Your task to perform on an android device: turn on javascript in the chrome app Image 0: 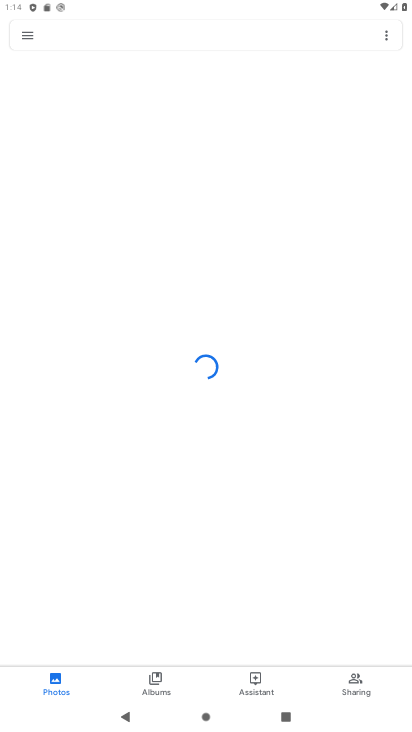
Step 0: press home button
Your task to perform on an android device: turn on javascript in the chrome app Image 1: 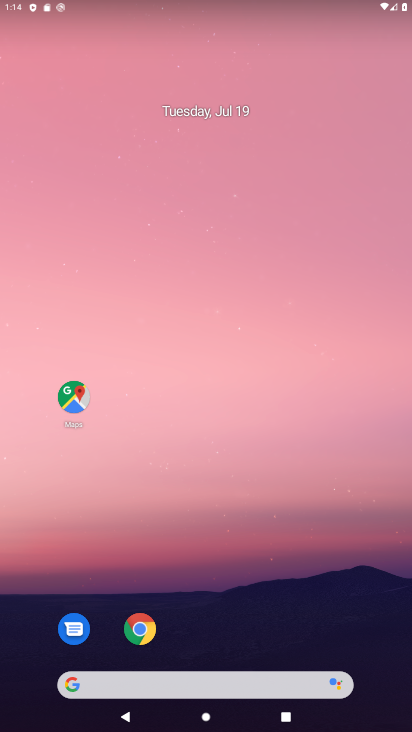
Step 1: click (143, 627)
Your task to perform on an android device: turn on javascript in the chrome app Image 2: 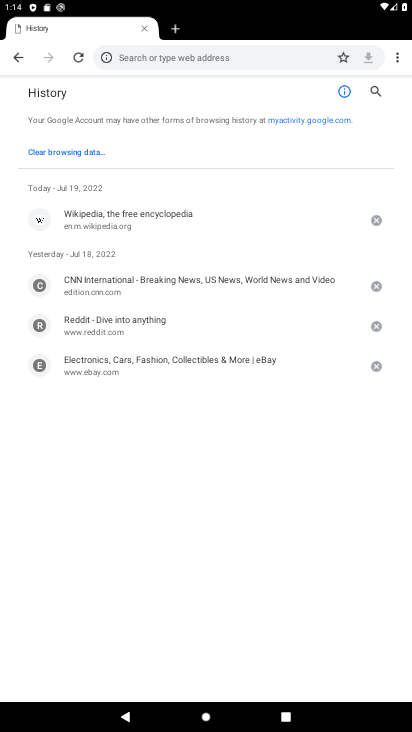
Step 2: click (398, 51)
Your task to perform on an android device: turn on javascript in the chrome app Image 3: 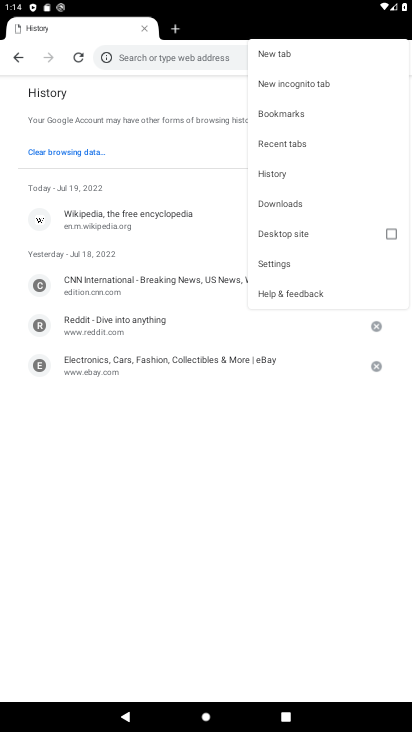
Step 3: click (291, 269)
Your task to perform on an android device: turn on javascript in the chrome app Image 4: 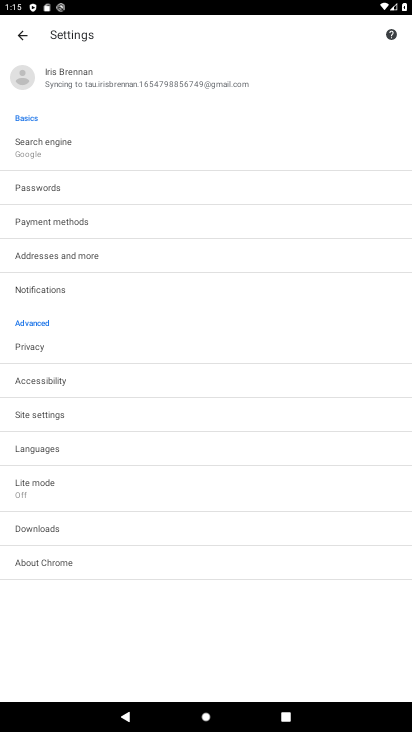
Step 4: click (87, 415)
Your task to perform on an android device: turn on javascript in the chrome app Image 5: 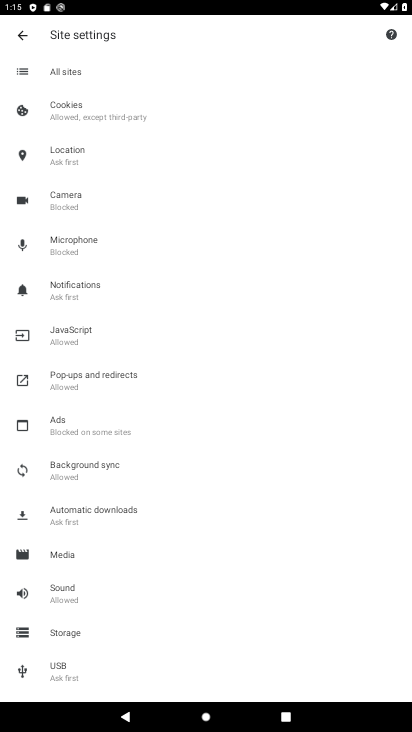
Step 5: click (82, 326)
Your task to perform on an android device: turn on javascript in the chrome app Image 6: 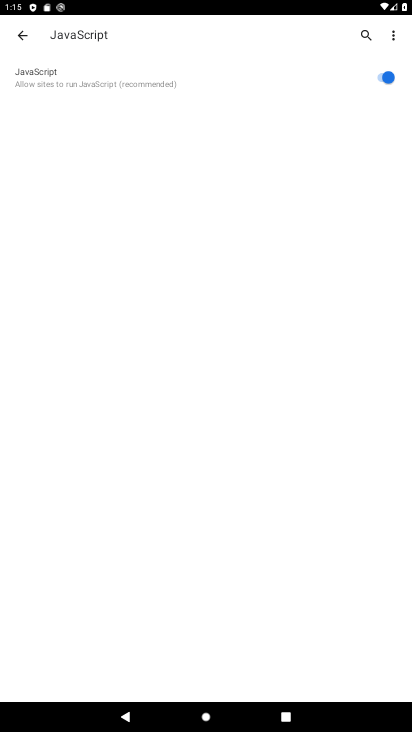
Step 6: task complete